Your task to perform on an android device: Show me popular videos on Youtube Image 0: 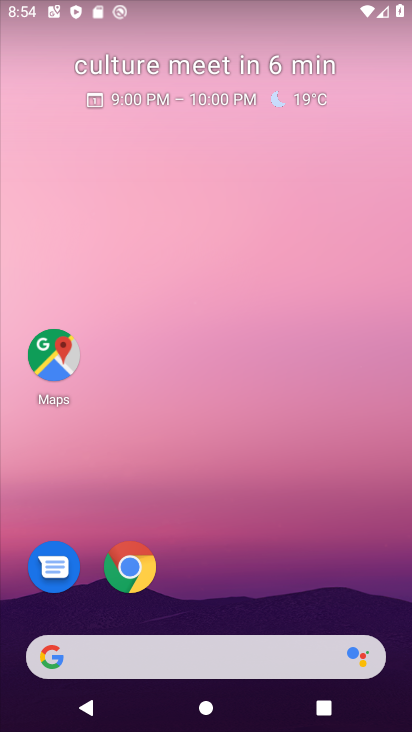
Step 0: drag from (297, 341) to (302, 29)
Your task to perform on an android device: Show me popular videos on Youtube Image 1: 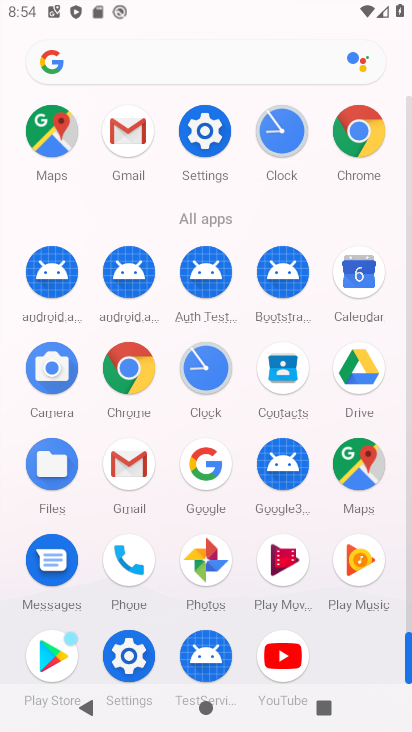
Step 1: click (288, 674)
Your task to perform on an android device: Show me popular videos on Youtube Image 2: 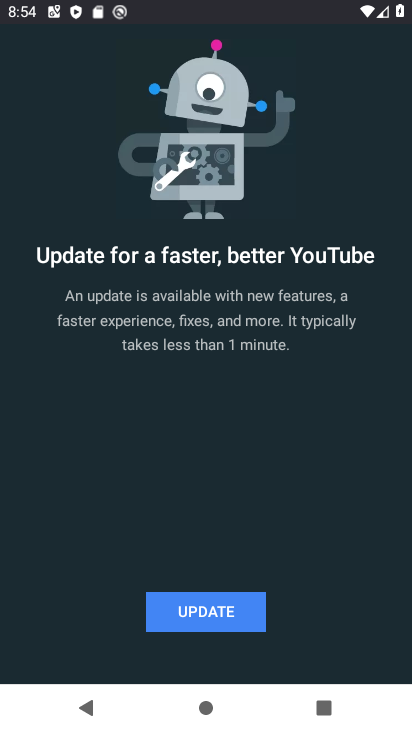
Step 2: click (206, 601)
Your task to perform on an android device: Show me popular videos on Youtube Image 3: 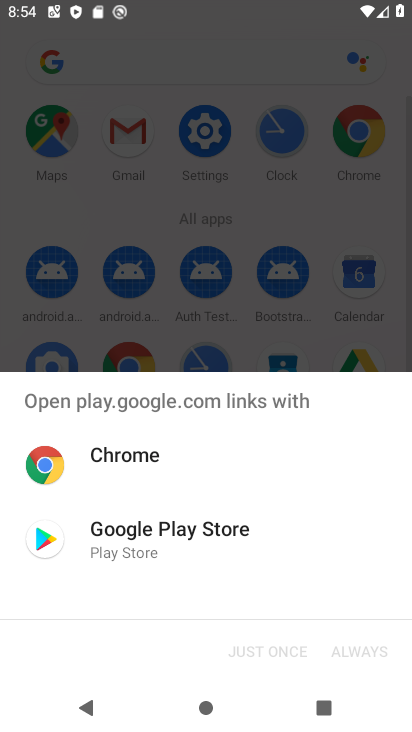
Step 3: click (151, 510)
Your task to perform on an android device: Show me popular videos on Youtube Image 4: 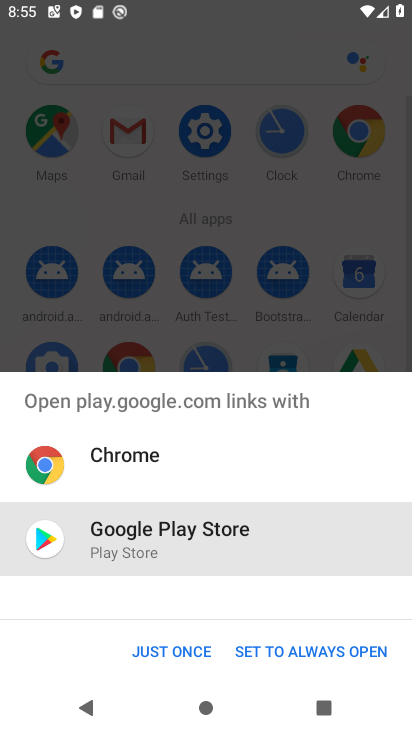
Step 4: click (141, 654)
Your task to perform on an android device: Show me popular videos on Youtube Image 5: 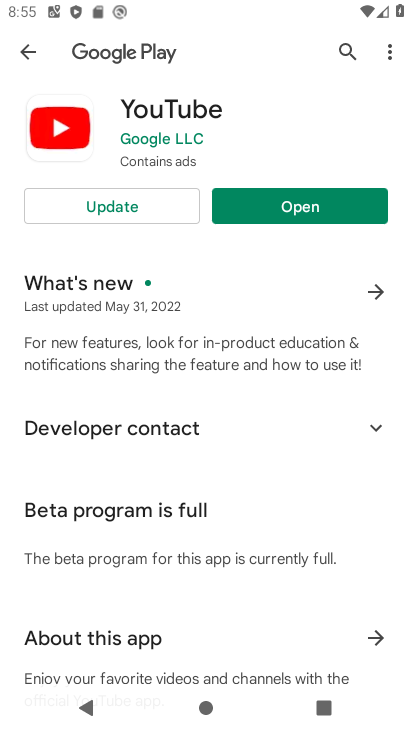
Step 5: click (92, 221)
Your task to perform on an android device: Show me popular videos on Youtube Image 6: 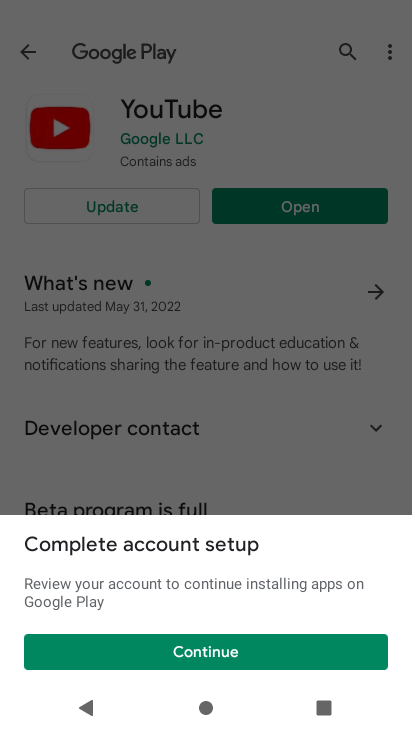
Step 6: click (125, 640)
Your task to perform on an android device: Show me popular videos on Youtube Image 7: 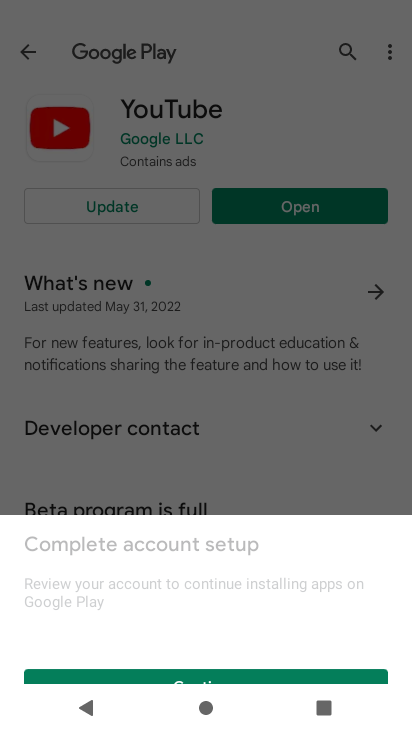
Step 7: click (125, 640)
Your task to perform on an android device: Show me popular videos on Youtube Image 8: 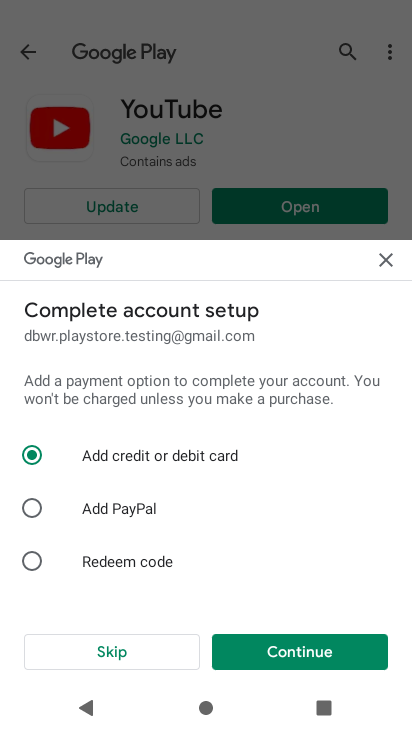
Step 8: click (129, 652)
Your task to perform on an android device: Show me popular videos on Youtube Image 9: 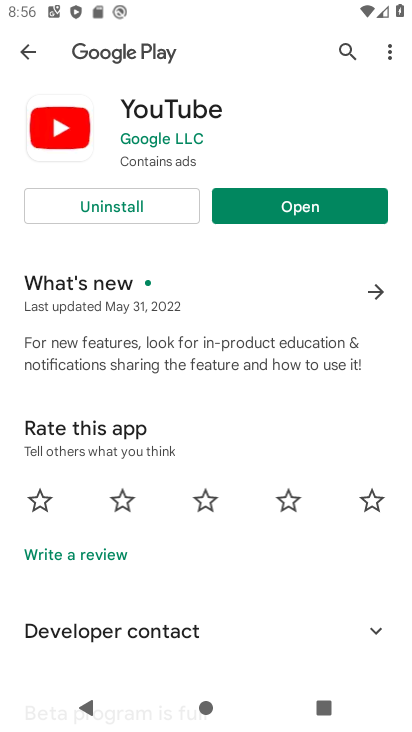
Step 9: click (346, 219)
Your task to perform on an android device: Show me popular videos on Youtube Image 10: 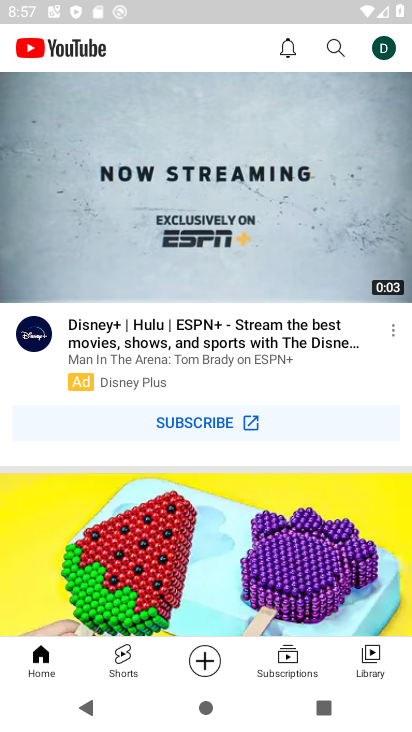
Step 10: drag from (94, 95) to (123, 574)
Your task to perform on an android device: Show me popular videos on Youtube Image 11: 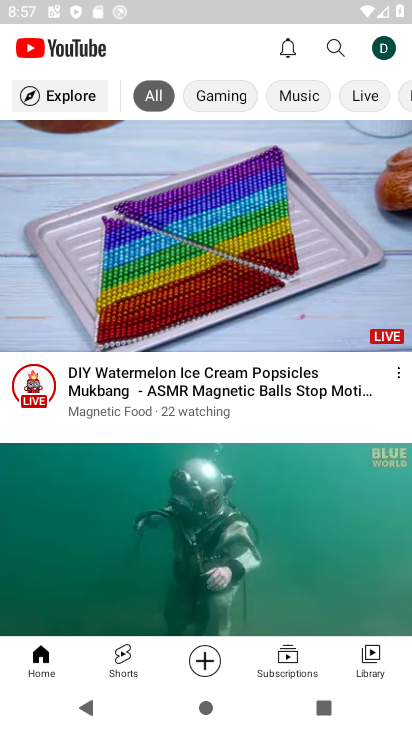
Step 11: click (65, 98)
Your task to perform on an android device: Show me popular videos on Youtube Image 12: 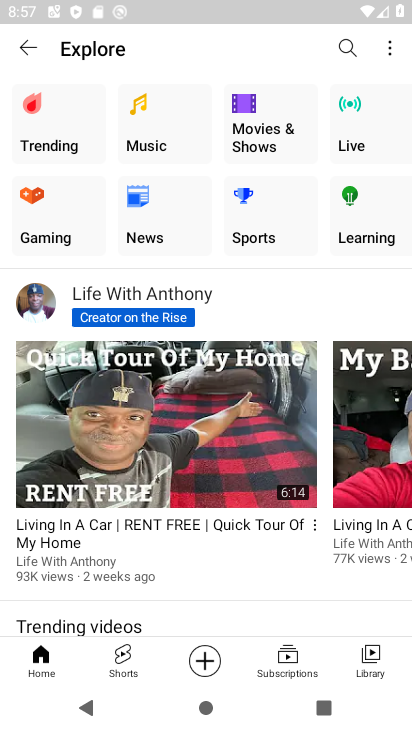
Step 12: click (69, 110)
Your task to perform on an android device: Show me popular videos on Youtube Image 13: 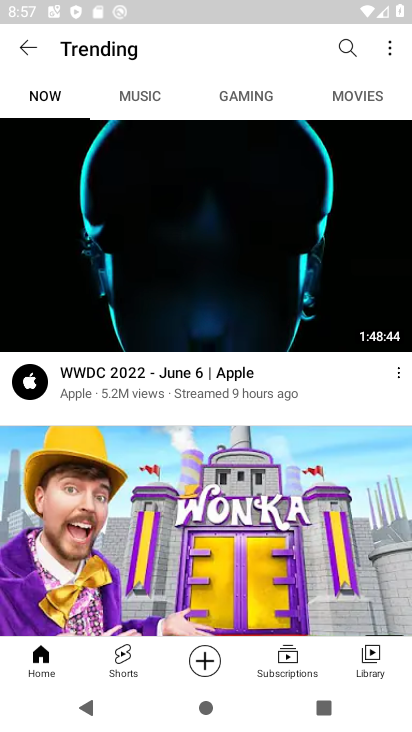
Step 13: task complete